Your task to perform on an android device: turn off javascript in the chrome app Image 0: 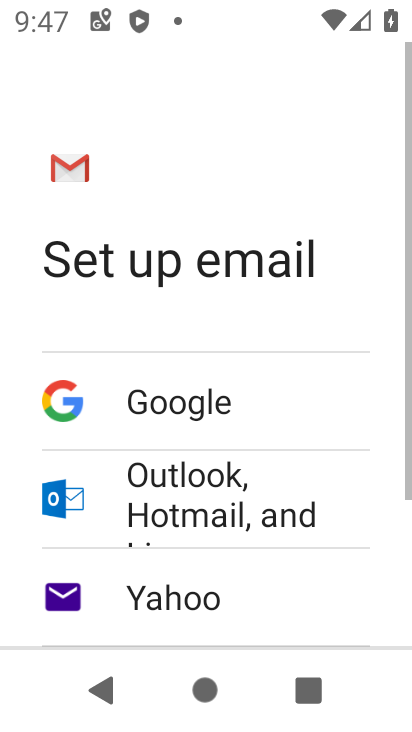
Step 0: press back button
Your task to perform on an android device: turn off javascript in the chrome app Image 1: 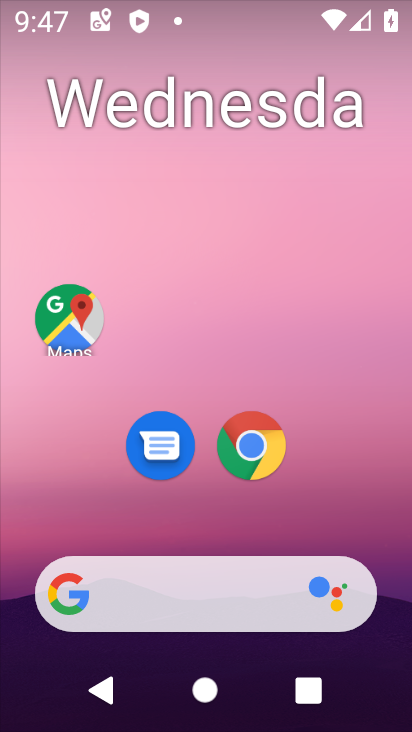
Step 1: click (253, 441)
Your task to perform on an android device: turn off javascript in the chrome app Image 2: 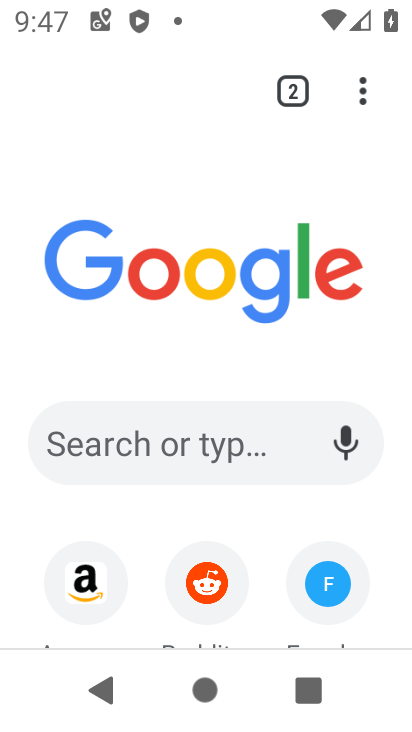
Step 2: drag from (358, 88) to (87, 463)
Your task to perform on an android device: turn off javascript in the chrome app Image 3: 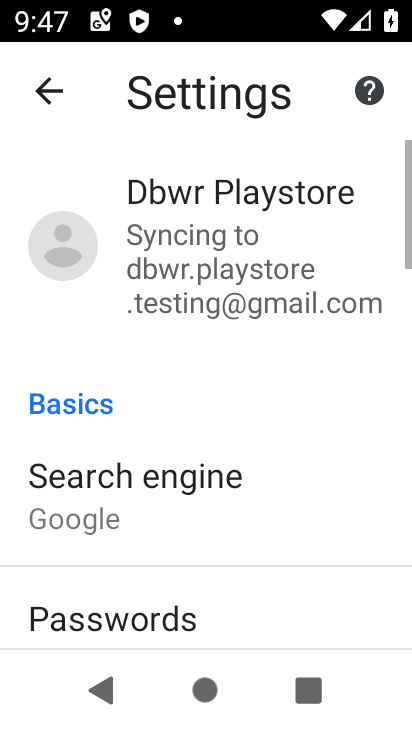
Step 3: drag from (163, 577) to (304, 87)
Your task to perform on an android device: turn off javascript in the chrome app Image 4: 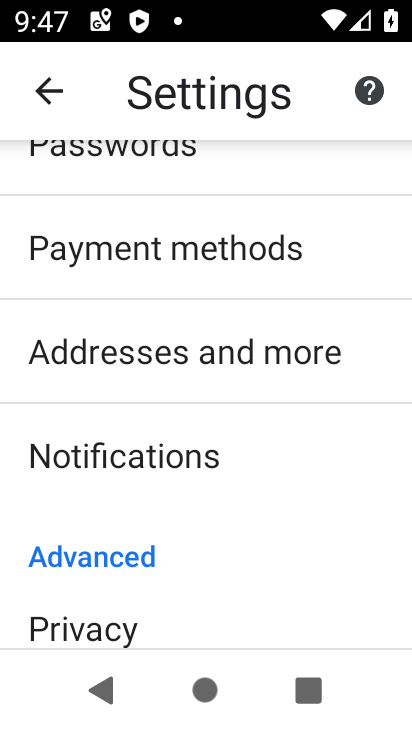
Step 4: drag from (188, 532) to (285, 134)
Your task to perform on an android device: turn off javascript in the chrome app Image 5: 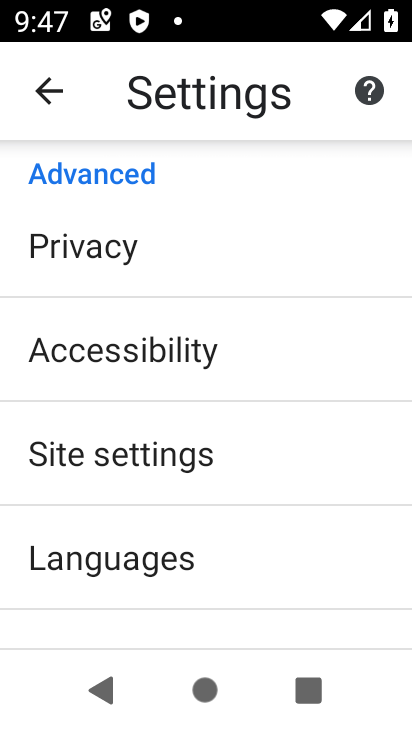
Step 5: click (173, 463)
Your task to perform on an android device: turn off javascript in the chrome app Image 6: 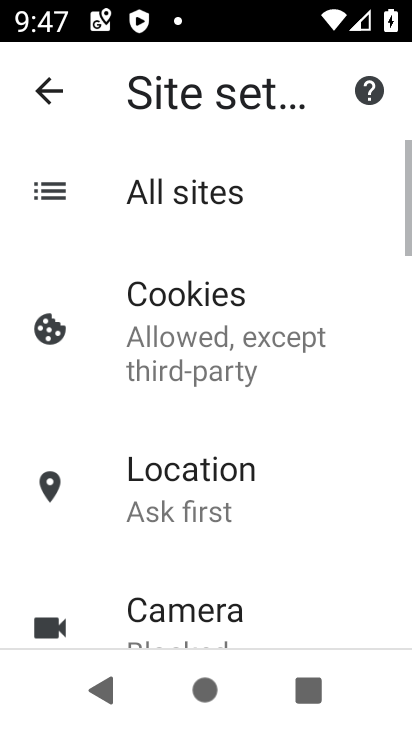
Step 6: drag from (207, 564) to (334, 98)
Your task to perform on an android device: turn off javascript in the chrome app Image 7: 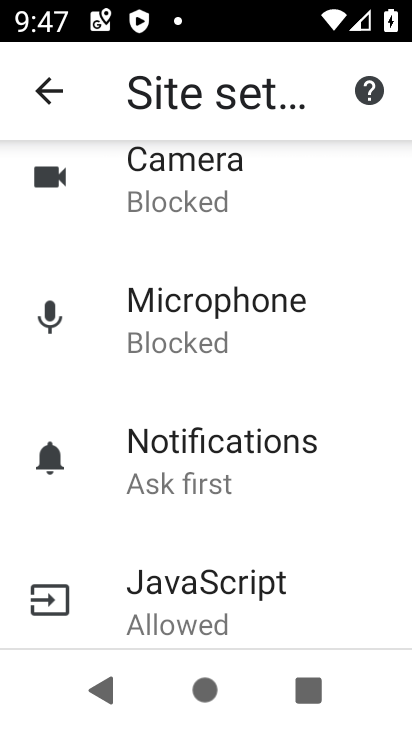
Step 7: click (180, 597)
Your task to perform on an android device: turn off javascript in the chrome app Image 8: 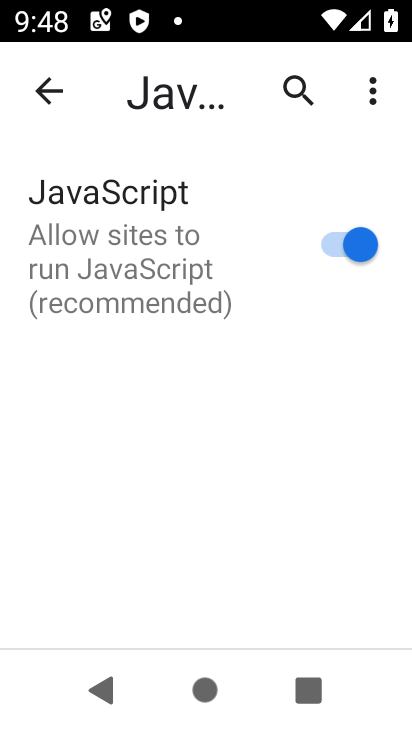
Step 8: click (357, 239)
Your task to perform on an android device: turn off javascript in the chrome app Image 9: 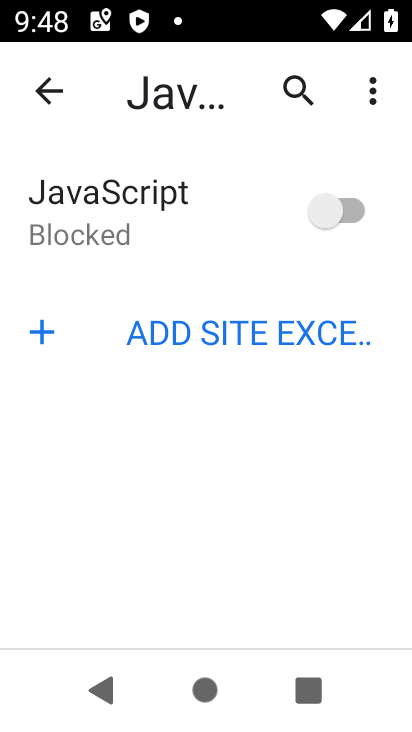
Step 9: task complete